Your task to perform on an android device: set default search engine in the chrome app Image 0: 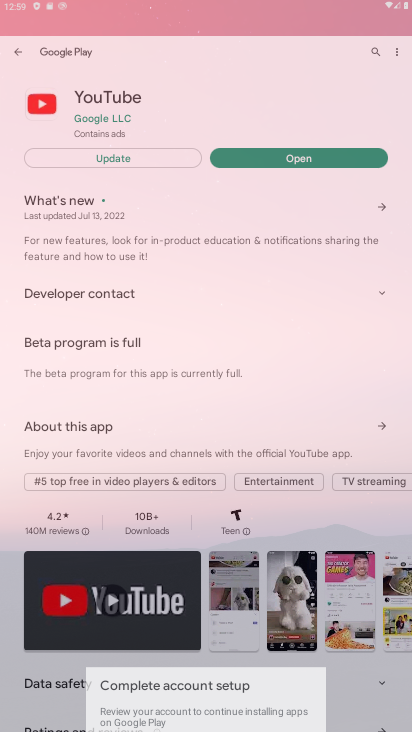
Step 0: drag from (201, 483) to (266, 3)
Your task to perform on an android device: set default search engine in the chrome app Image 1: 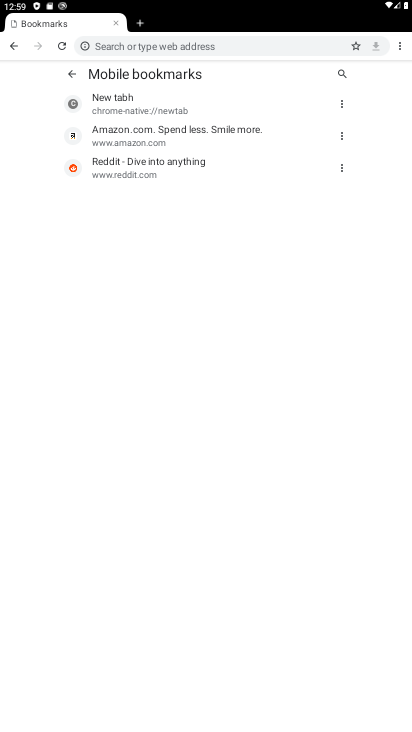
Step 1: press home button
Your task to perform on an android device: set default search engine in the chrome app Image 2: 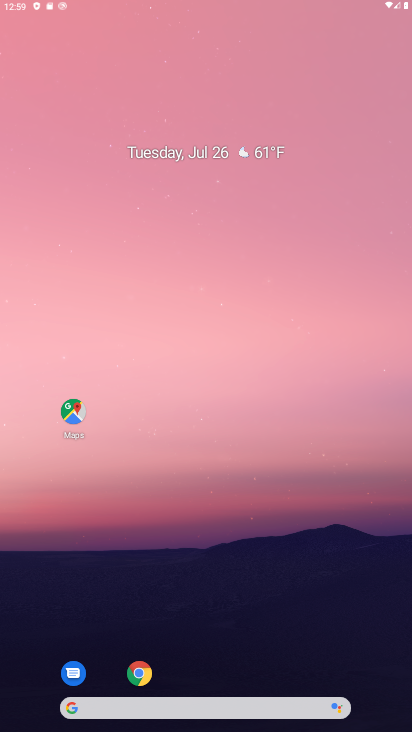
Step 2: drag from (269, 584) to (207, 131)
Your task to perform on an android device: set default search engine in the chrome app Image 3: 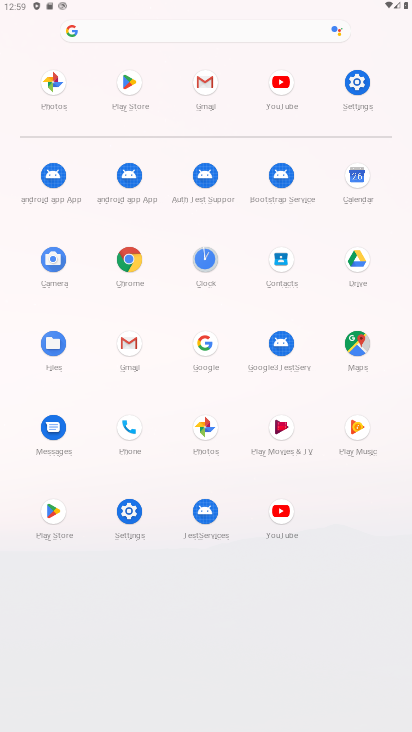
Step 3: click (124, 260)
Your task to perform on an android device: set default search engine in the chrome app Image 4: 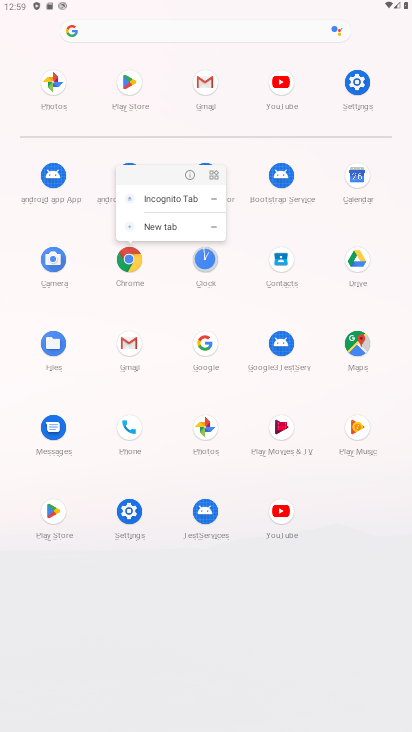
Step 4: click (195, 172)
Your task to perform on an android device: set default search engine in the chrome app Image 5: 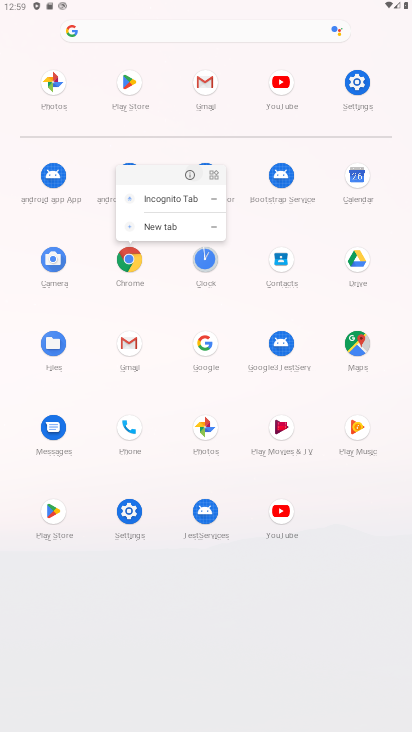
Step 5: click (195, 172)
Your task to perform on an android device: set default search engine in the chrome app Image 6: 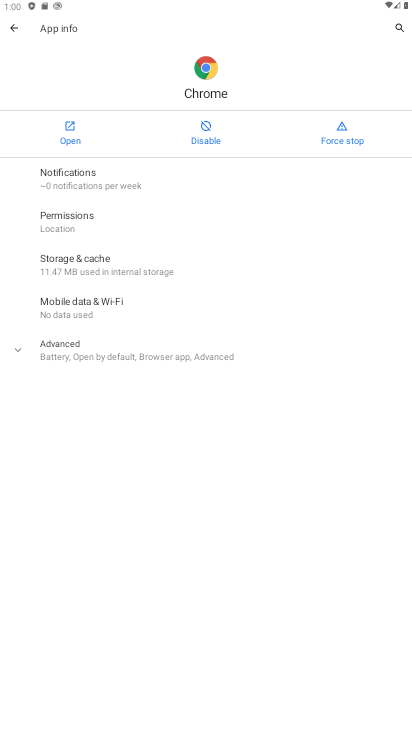
Step 6: click (71, 128)
Your task to perform on an android device: set default search engine in the chrome app Image 7: 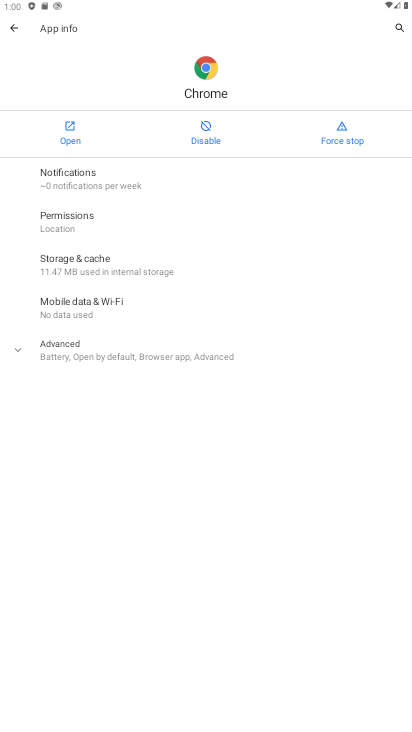
Step 7: click (71, 128)
Your task to perform on an android device: set default search engine in the chrome app Image 8: 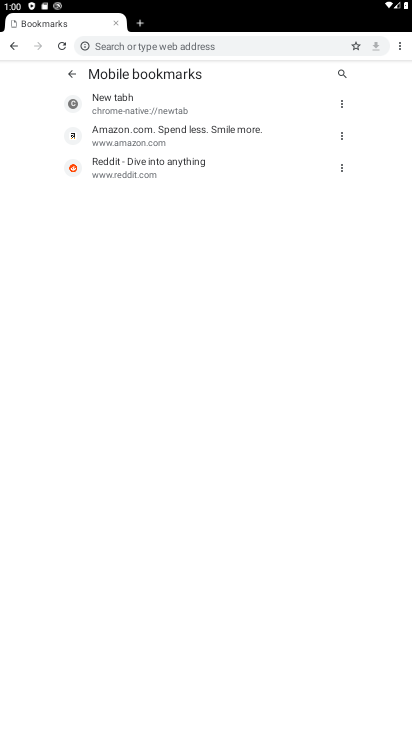
Step 8: drag from (400, 47) to (327, 204)
Your task to perform on an android device: set default search engine in the chrome app Image 9: 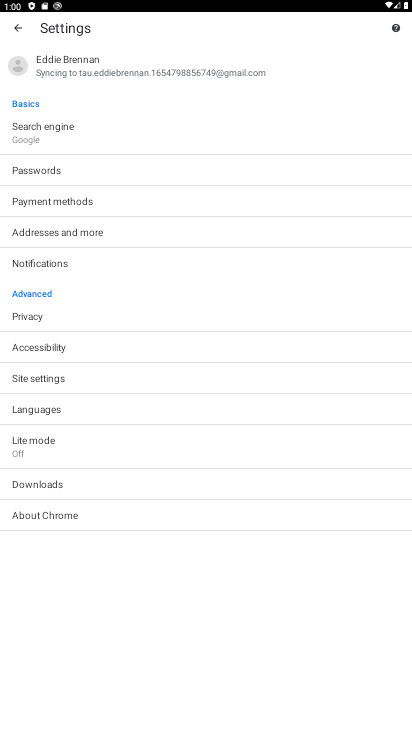
Step 9: click (64, 131)
Your task to perform on an android device: set default search engine in the chrome app Image 10: 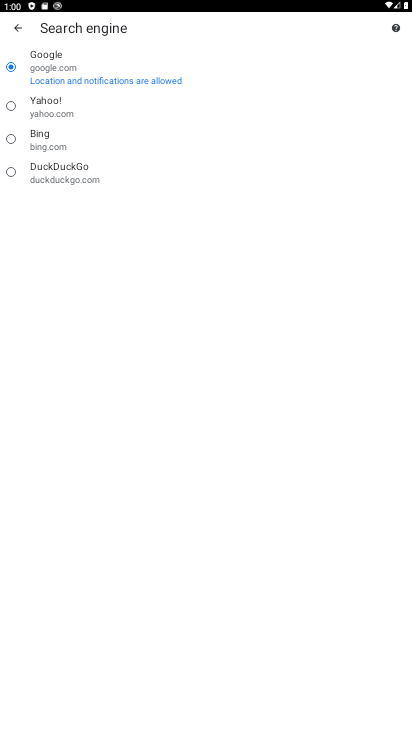
Step 10: task complete